Your task to perform on an android device: Go to CNN.com Image 0: 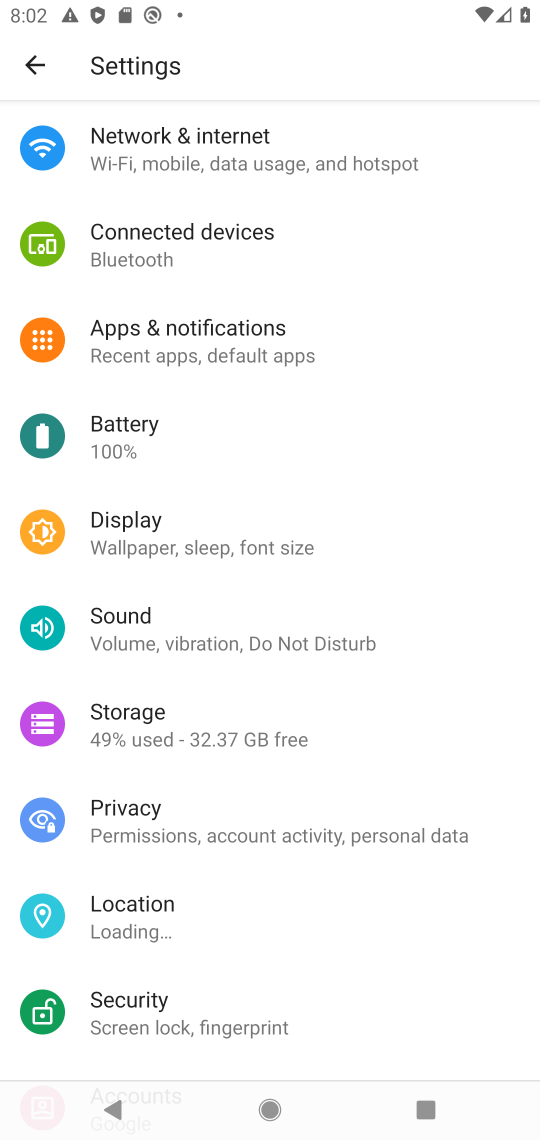
Step 0: press home button
Your task to perform on an android device: Go to CNN.com Image 1: 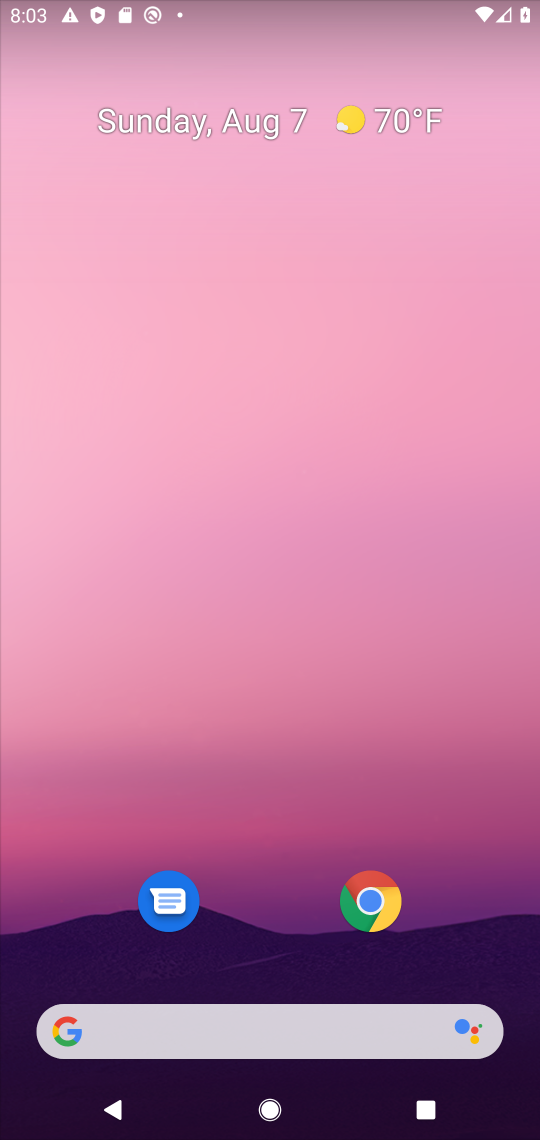
Step 1: click (369, 913)
Your task to perform on an android device: Go to CNN.com Image 2: 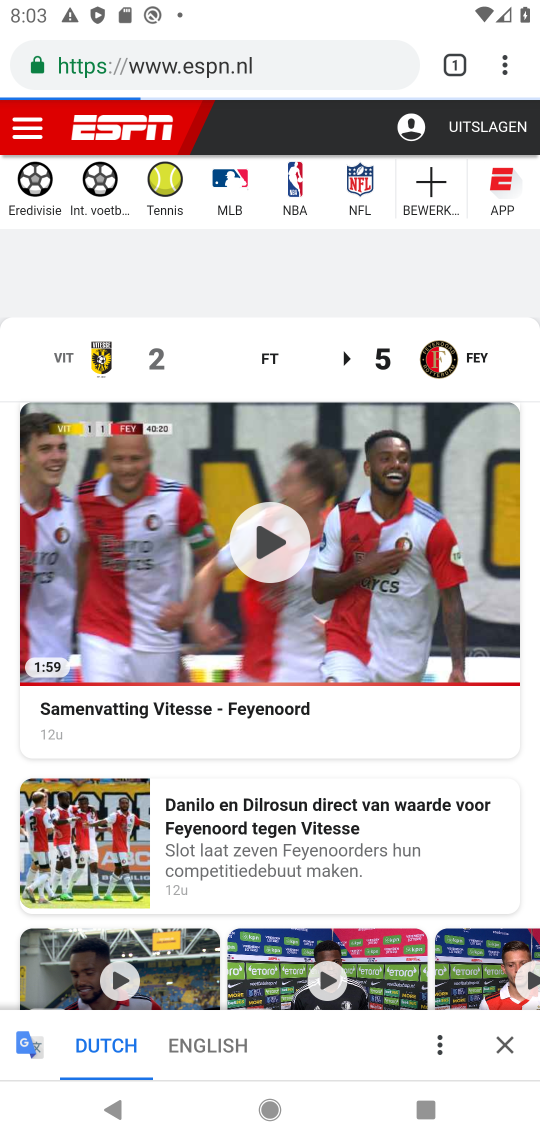
Step 2: click (221, 66)
Your task to perform on an android device: Go to CNN.com Image 3: 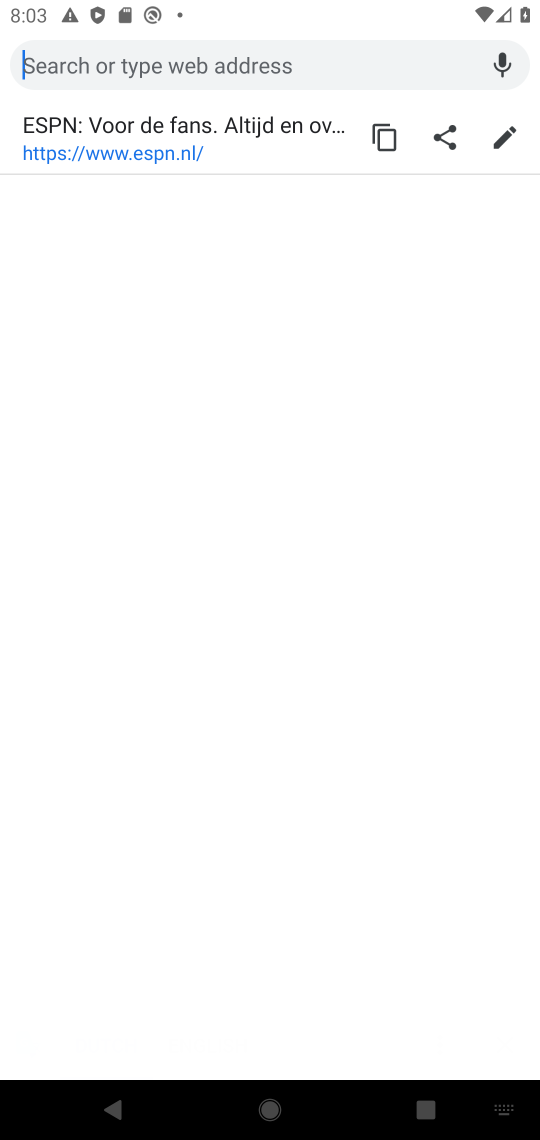
Step 3: type "cnn.com"
Your task to perform on an android device: Go to CNN.com Image 4: 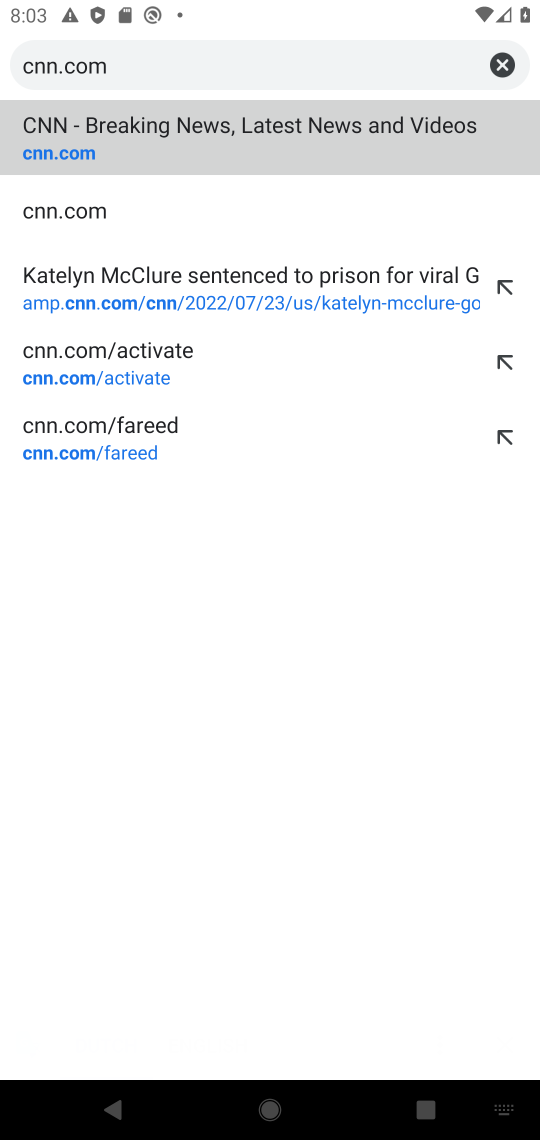
Step 4: click (180, 109)
Your task to perform on an android device: Go to CNN.com Image 5: 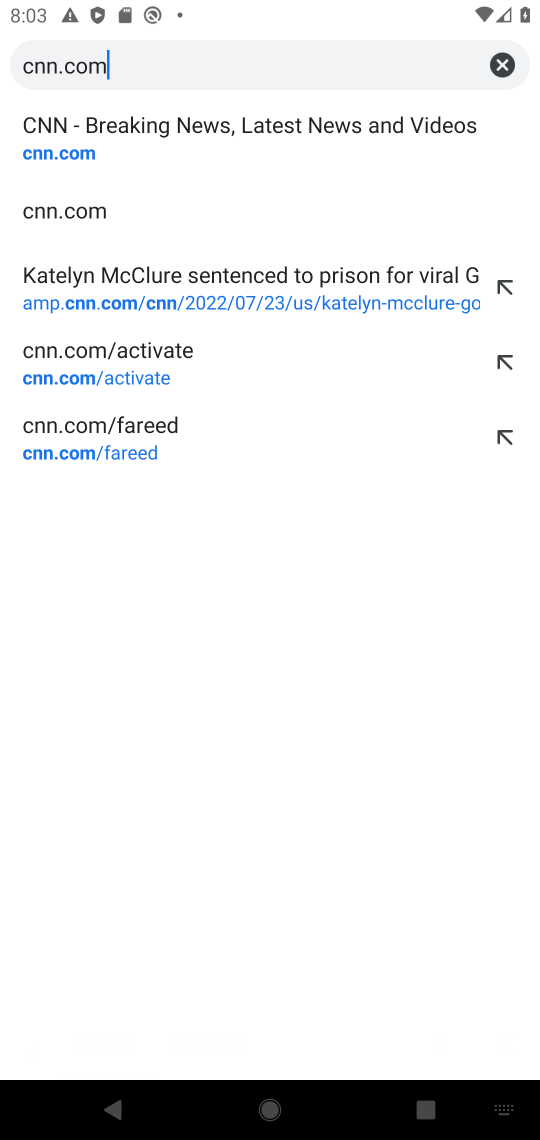
Step 5: click (168, 123)
Your task to perform on an android device: Go to CNN.com Image 6: 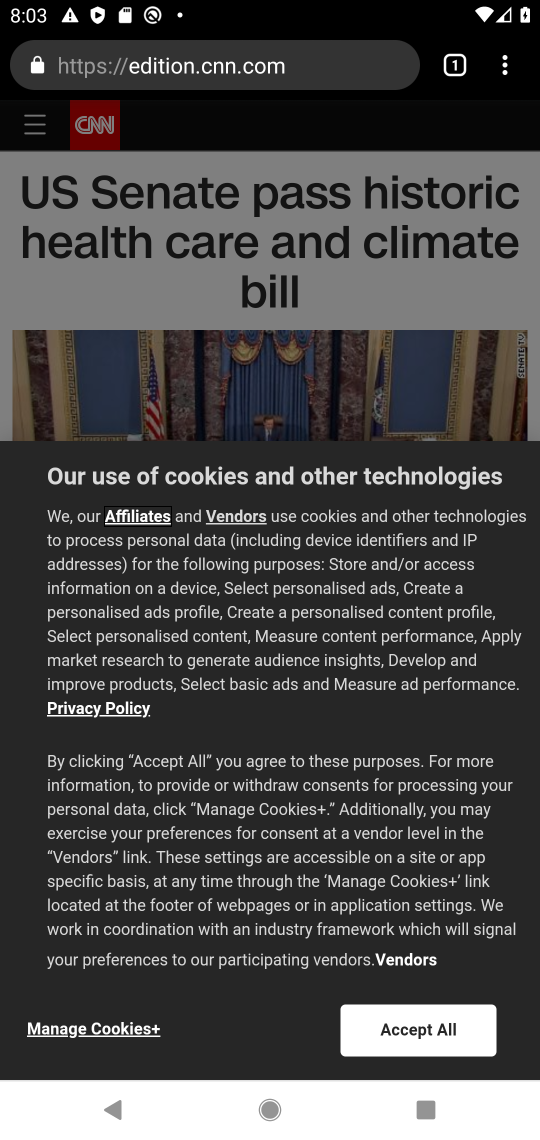
Step 6: click (398, 1024)
Your task to perform on an android device: Go to CNN.com Image 7: 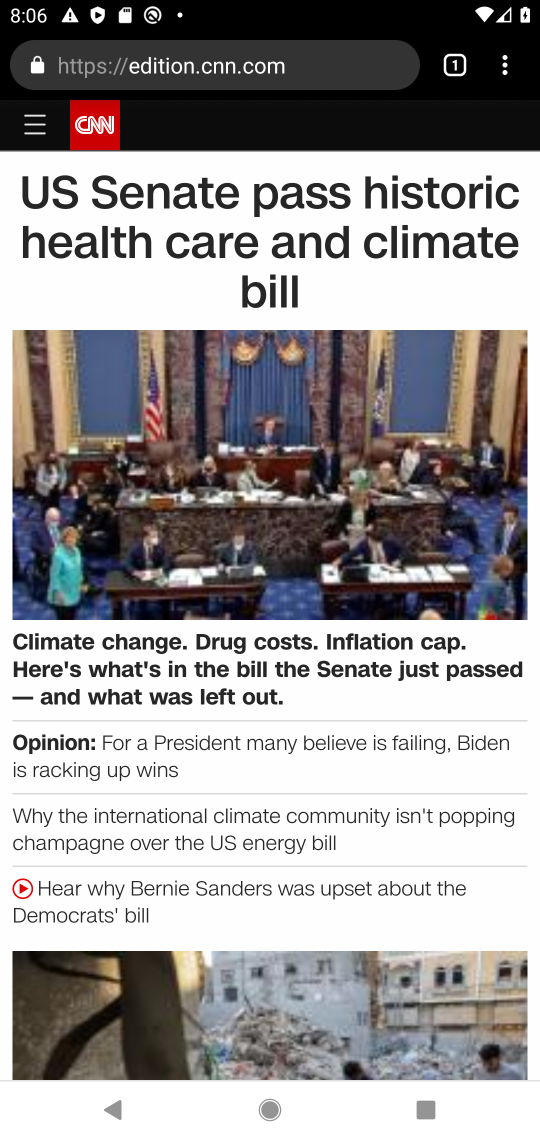
Step 7: task complete